Your task to perform on an android device: Open Google Maps and go to "Timeline" Image 0: 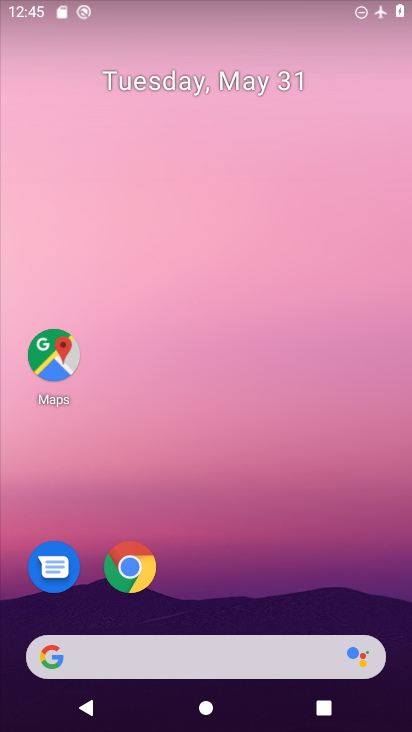
Step 0: click (74, 374)
Your task to perform on an android device: Open Google Maps and go to "Timeline" Image 1: 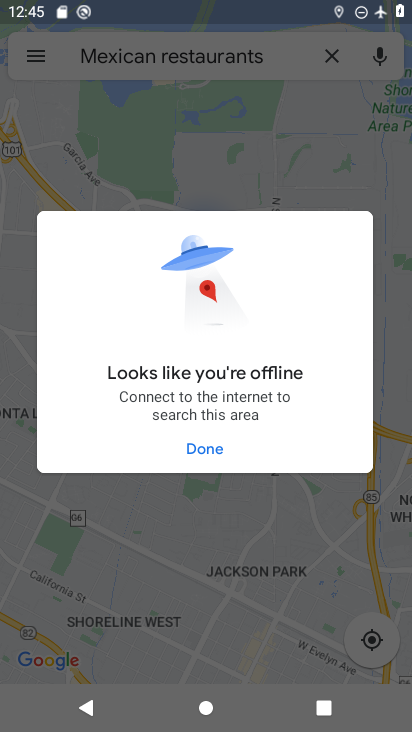
Step 1: click (221, 447)
Your task to perform on an android device: Open Google Maps and go to "Timeline" Image 2: 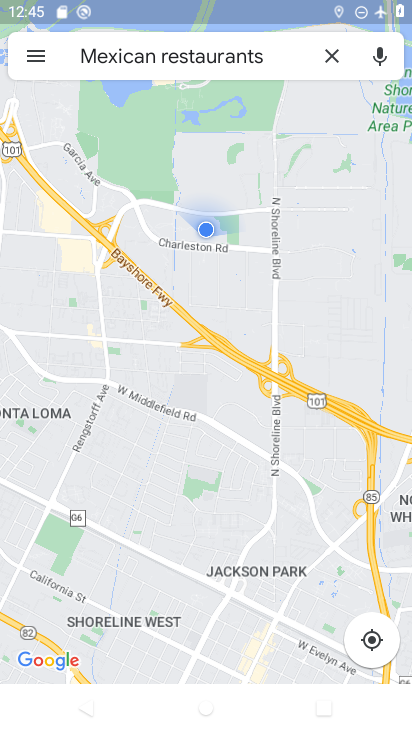
Step 2: click (41, 52)
Your task to perform on an android device: Open Google Maps and go to "Timeline" Image 3: 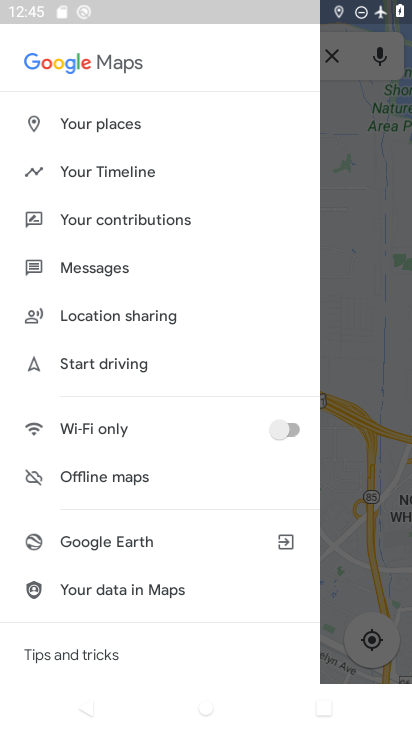
Step 3: click (136, 164)
Your task to perform on an android device: Open Google Maps and go to "Timeline" Image 4: 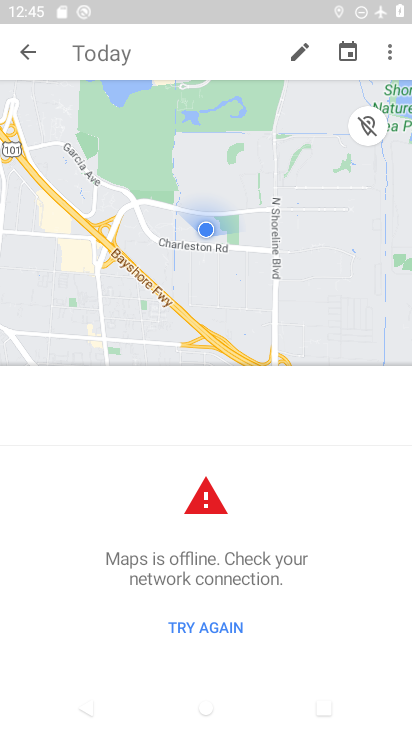
Step 4: task complete